Your task to perform on an android device: Show me popular videos on Youtube Image 0: 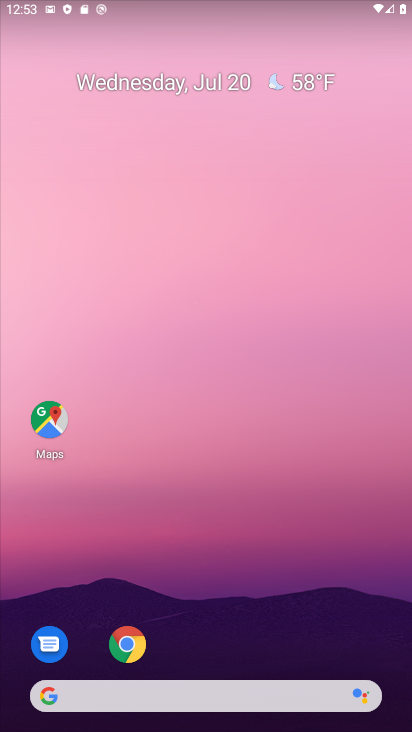
Step 0: drag from (195, 659) to (191, 164)
Your task to perform on an android device: Show me popular videos on Youtube Image 1: 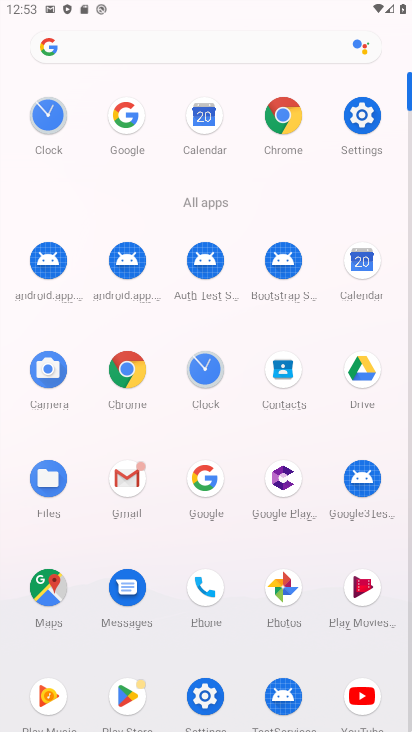
Step 1: click (363, 687)
Your task to perform on an android device: Show me popular videos on Youtube Image 2: 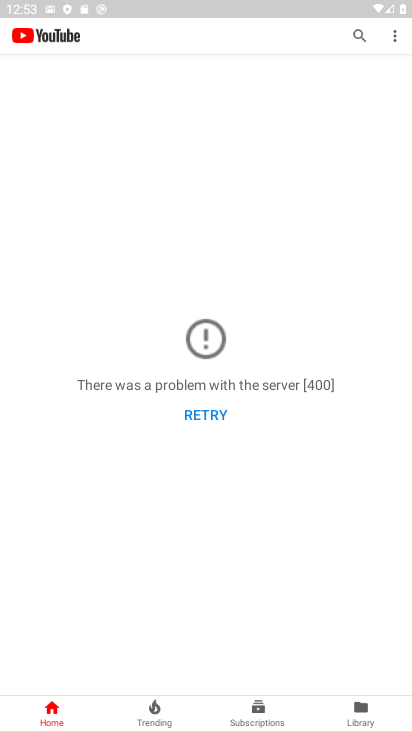
Step 2: click (357, 32)
Your task to perform on an android device: Show me popular videos on Youtube Image 3: 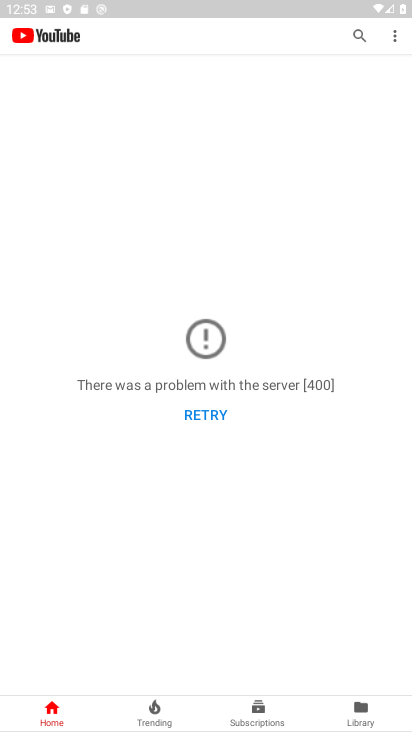
Step 3: click (357, 34)
Your task to perform on an android device: Show me popular videos on Youtube Image 4: 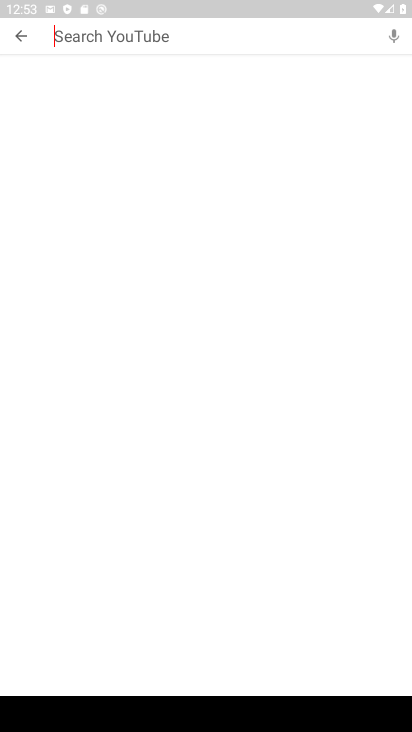
Step 4: task complete